Your task to perform on an android device: Open the Play Movies app and select the watchlist tab. Image 0: 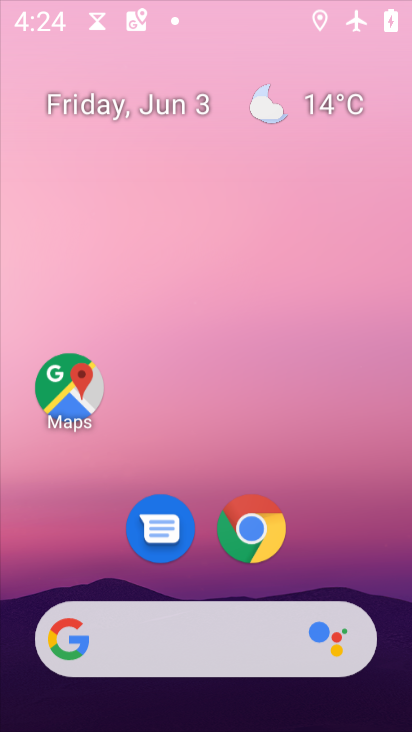
Step 0: drag from (314, 121) to (320, 30)
Your task to perform on an android device: Open the Play Movies app and select the watchlist tab. Image 1: 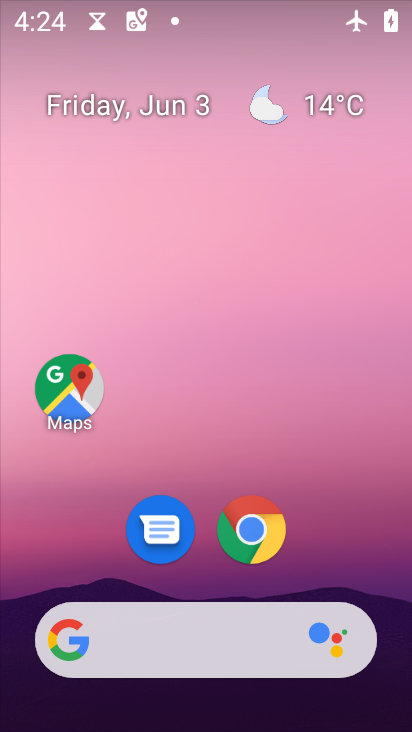
Step 1: drag from (338, 534) to (346, 0)
Your task to perform on an android device: Open the Play Movies app and select the watchlist tab. Image 2: 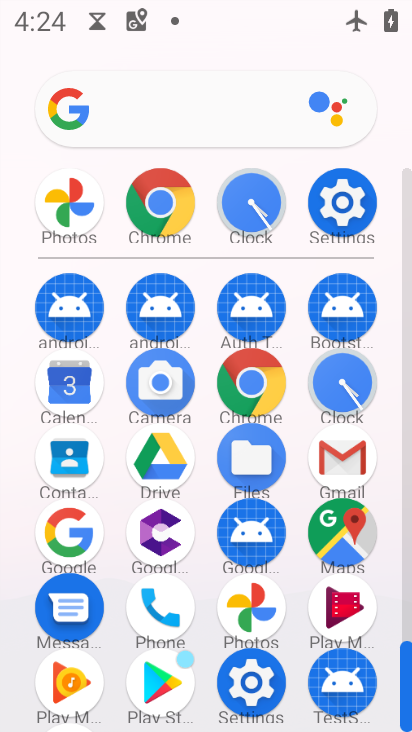
Step 2: click (348, 594)
Your task to perform on an android device: Open the Play Movies app and select the watchlist tab. Image 3: 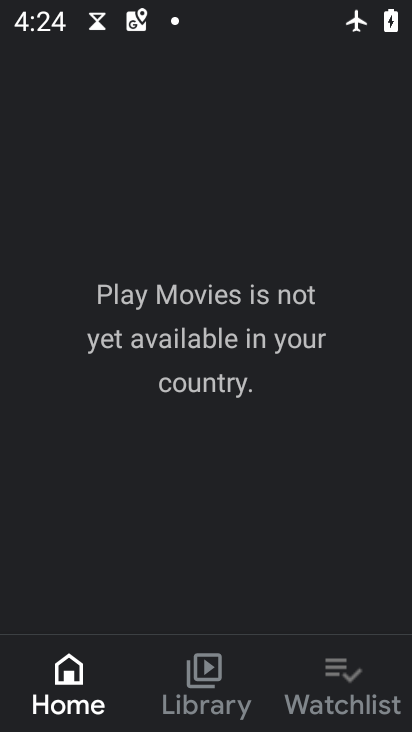
Step 3: click (360, 705)
Your task to perform on an android device: Open the Play Movies app and select the watchlist tab. Image 4: 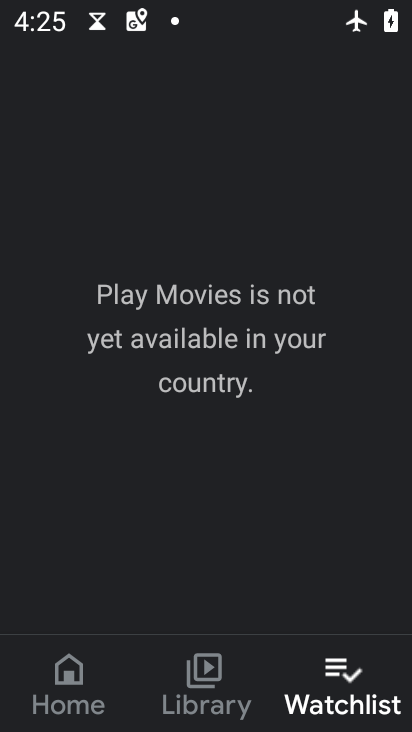
Step 4: task complete